Your task to perform on an android device: turn on data saver in the chrome app Image 0: 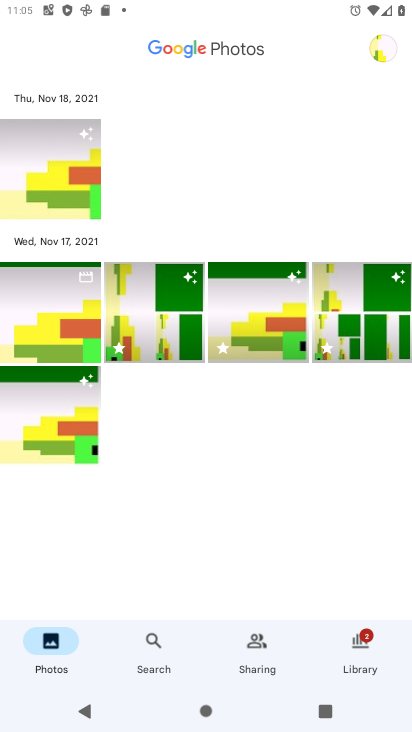
Step 0: press home button
Your task to perform on an android device: turn on data saver in the chrome app Image 1: 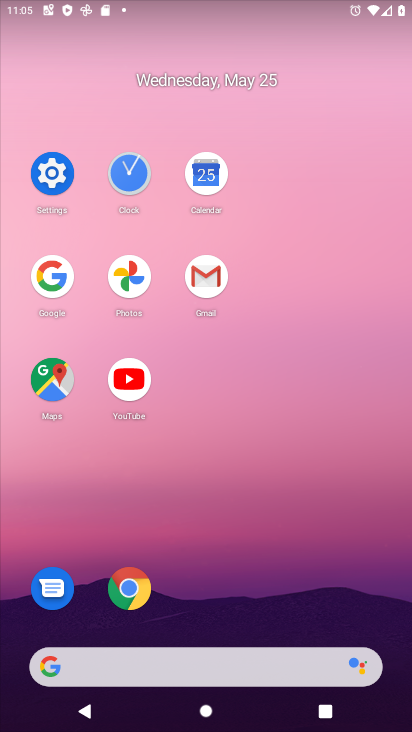
Step 1: click (119, 589)
Your task to perform on an android device: turn on data saver in the chrome app Image 2: 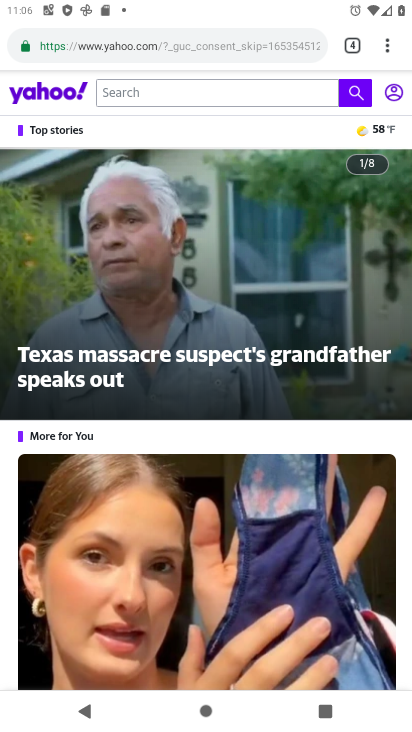
Step 2: click (387, 50)
Your task to perform on an android device: turn on data saver in the chrome app Image 3: 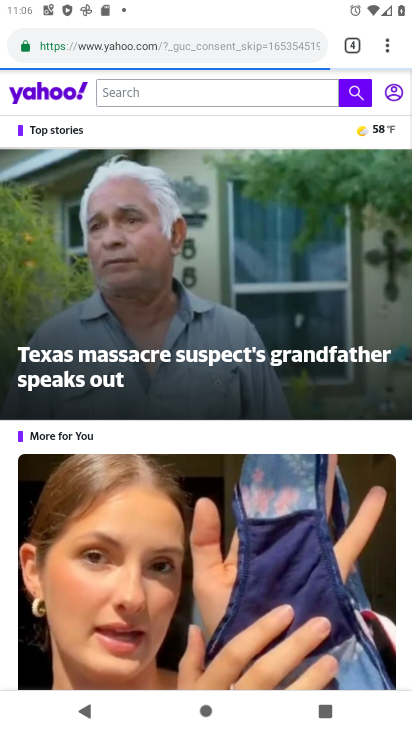
Step 3: click (387, 53)
Your task to perform on an android device: turn on data saver in the chrome app Image 4: 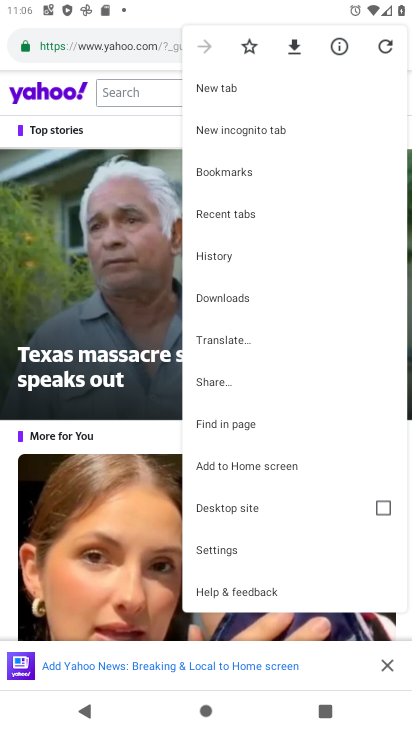
Step 4: click (307, 551)
Your task to perform on an android device: turn on data saver in the chrome app Image 5: 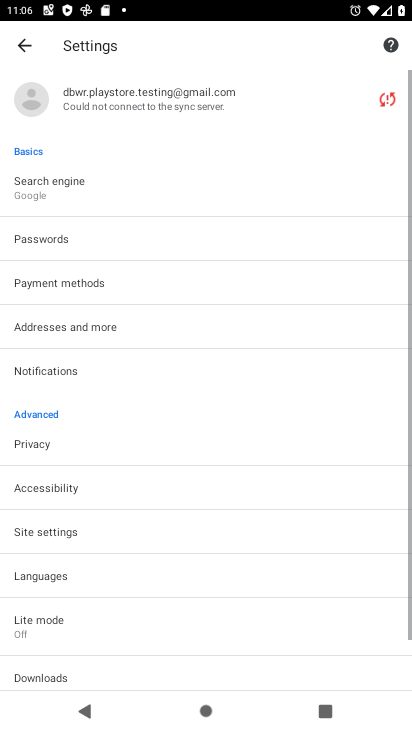
Step 5: drag from (307, 551) to (193, 147)
Your task to perform on an android device: turn on data saver in the chrome app Image 6: 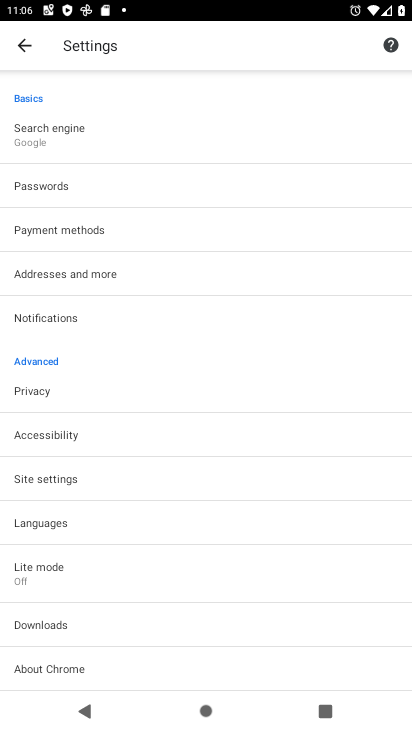
Step 6: click (205, 568)
Your task to perform on an android device: turn on data saver in the chrome app Image 7: 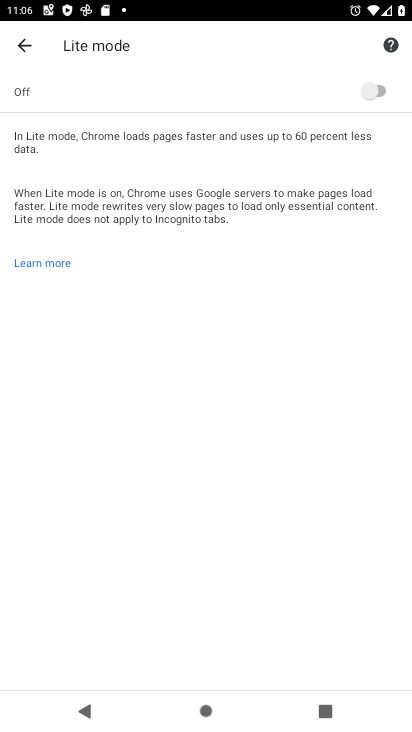
Step 7: click (364, 90)
Your task to perform on an android device: turn on data saver in the chrome app Image 8: 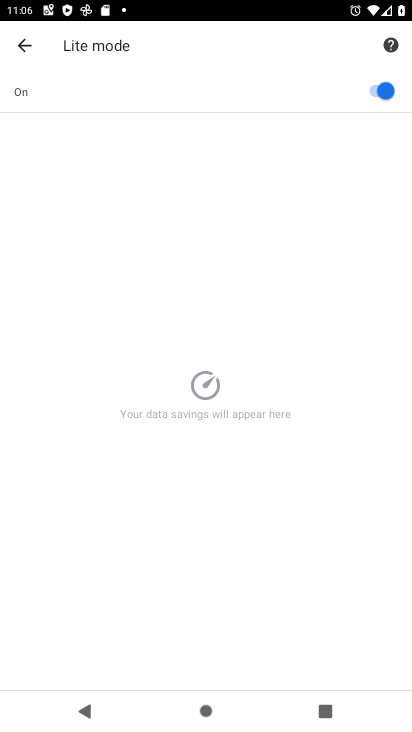
Step 8: task complete